Your task to perform on an android device: turn pop-ups off in chrome Image 0: 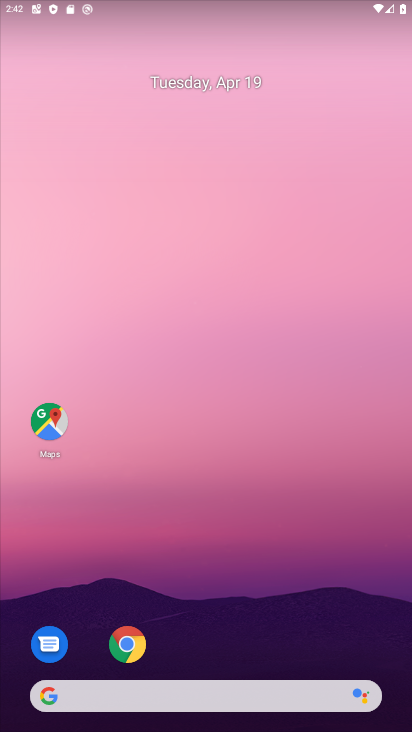
Step 0: drag from (238, 446) to (228, 160)
Your task to perform on an android device: turn pop-ups off in chrome Image 1: 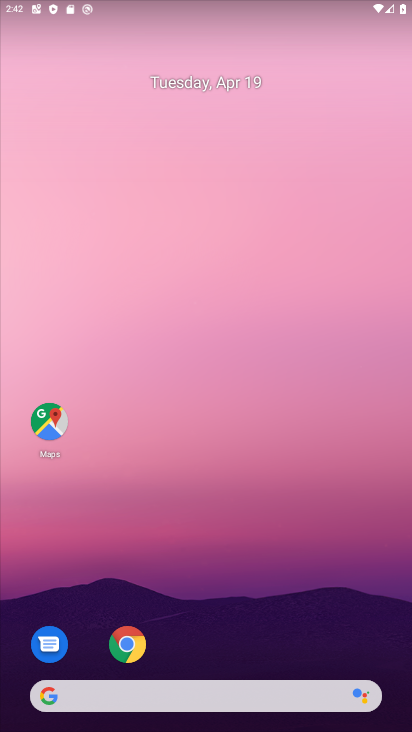
Step 1: drag from (275, 662) to (196, 133)
Your task to perform on an android device: turn pop-ups off in chrome Image 2: 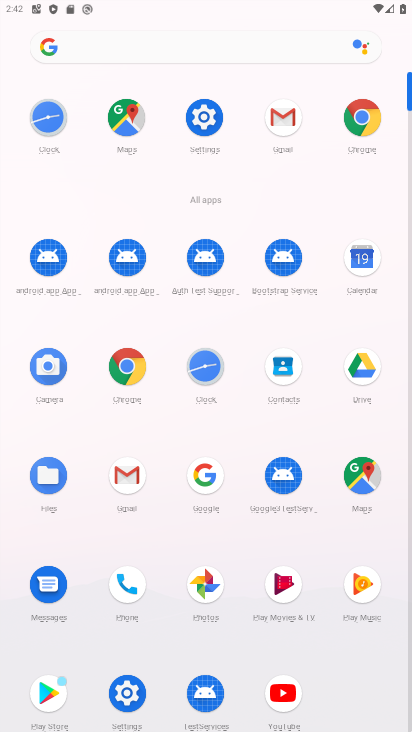
Step 2: click (124, 363)
Your task to perform on an android device: turn pop-ups off in chrome Image 3: 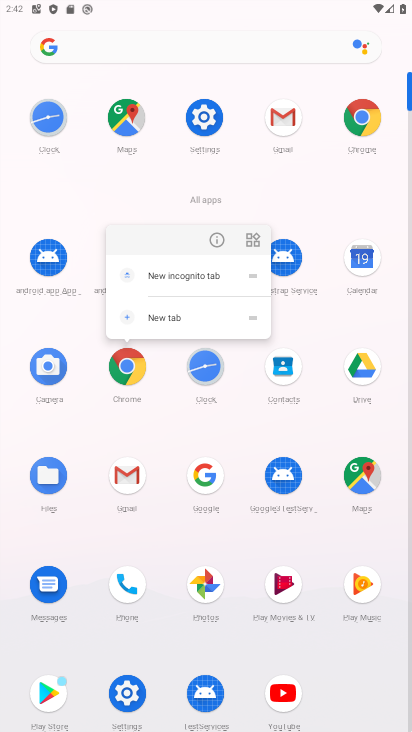
Step 3: click (131, 370)
Your task to perform on an android device: turn pop-ups off in chrome Image 4: 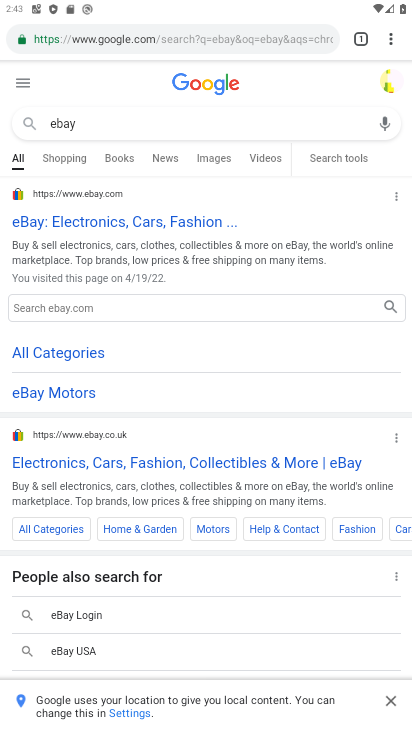
Step 4: click (393, 38)
Your task to perform on an android device: turn pop-ups off in chrome Image 5: 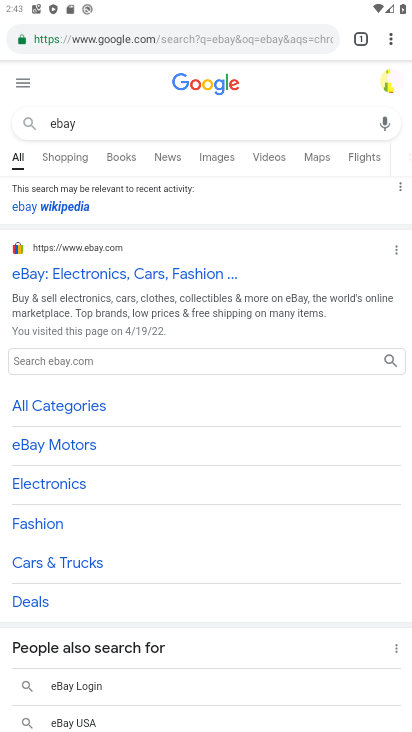
Step 5: drag from (391, 36) to (252, 482)
Your task to perform on an android device: turn pop-ups off in chrome Image 6: 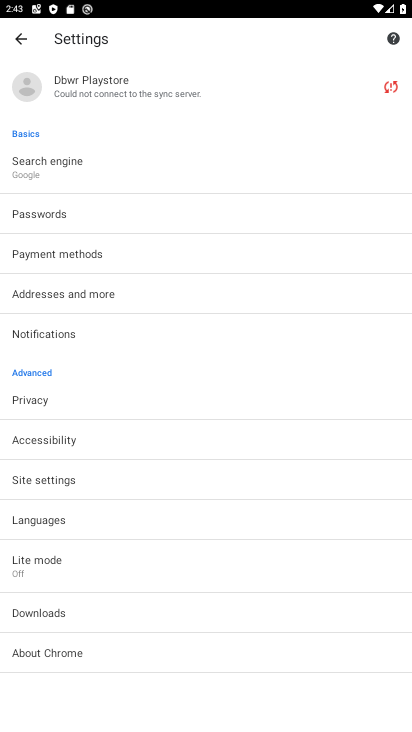
Step 6: click (49, 480)
Your task to perform on an android device: turn pop-ups off in chrome Image 7: 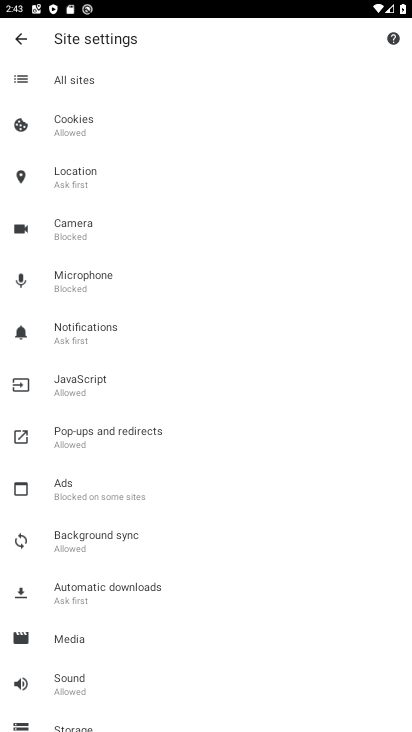
Step 7: click (122, 429)
Your task to perform on an android device: turn pop-ups off in chrome Image 8: 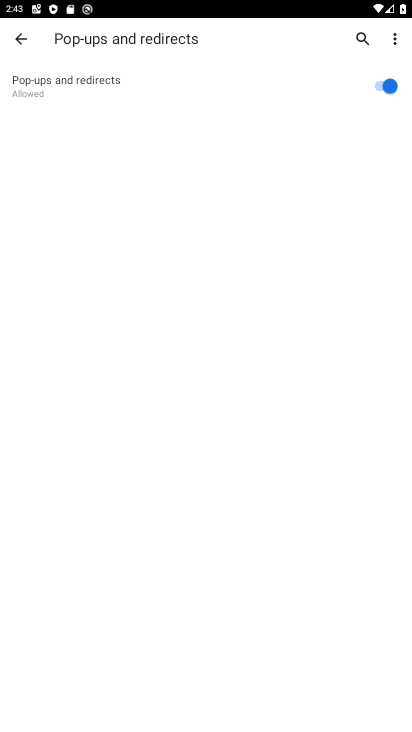
Step 8: click (380, 83)
Your task to perform on an android device: turn pop-ups off in chrome Image 9: 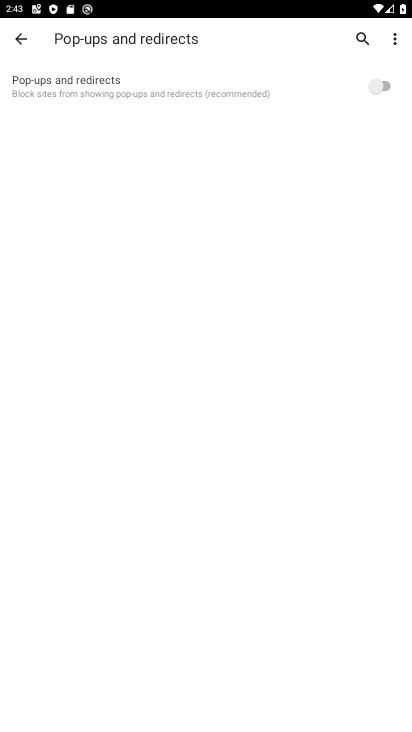
Step 9: task complete